Your task to perform on an android device: What's on my calendar tomorrow? Image 0: 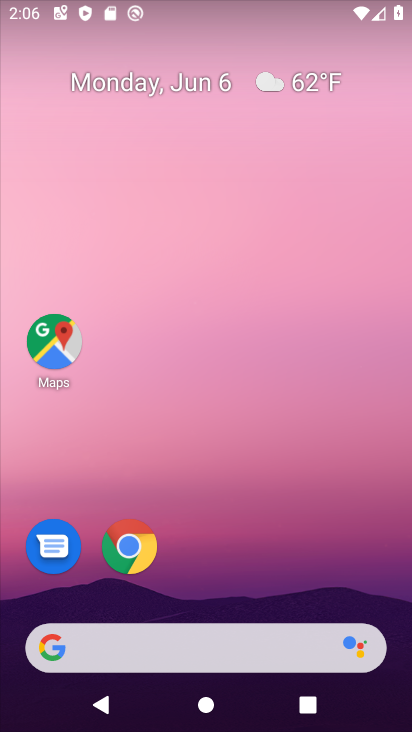
Step 0: drag from (220, 541) to (249, 0)
Your task to perform on an android device: What's on my calendar tomorrow? Image 1: 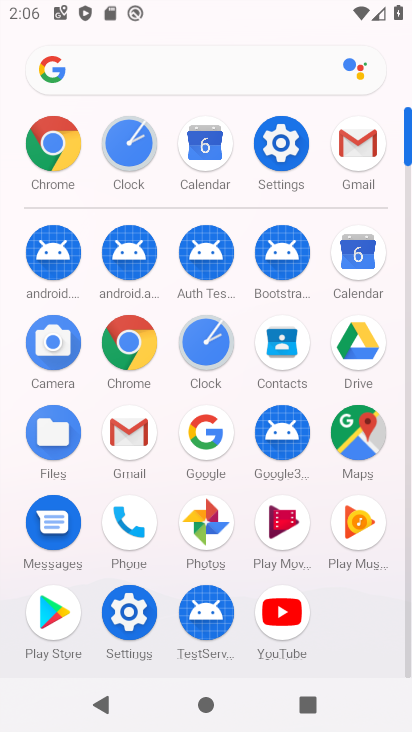
Step 1: click (354, 251)
Your task to perform on an android device: What's on my calendar tomorrow? Image 2: 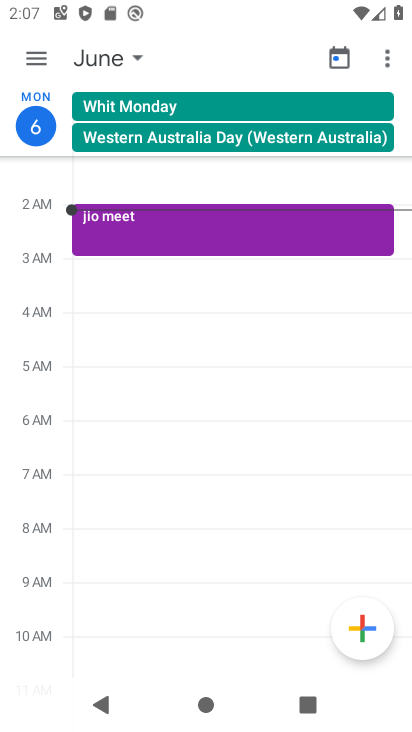
Step 2: click (100, 58)
Your task to perform on an android device: What's on my calendar tomorrow? Image 3: 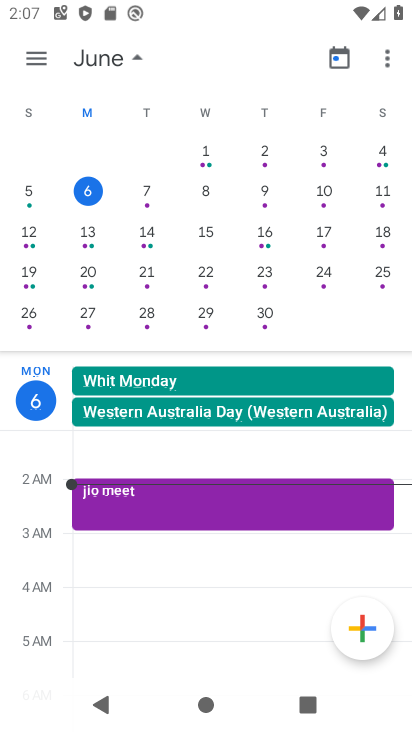
Step 3: click (146, 184)
Your task to perform on an android device: What's on my calendar tomorrow? Image 4: 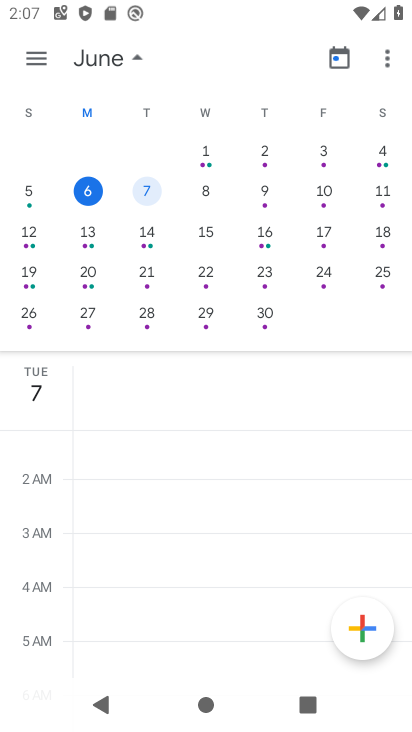
Step 4: task complete